Your task to perform on an android device: Find coffee shops on Maps Image 0: 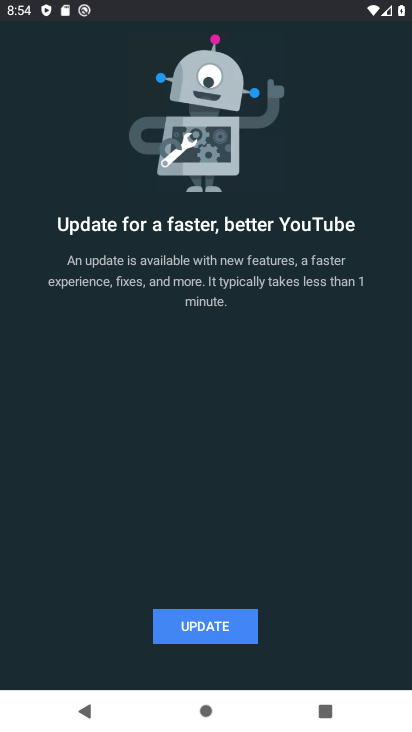
Step 0: press home button
Your task to perform on an android device: Find coffee shops on Maps Image 1: 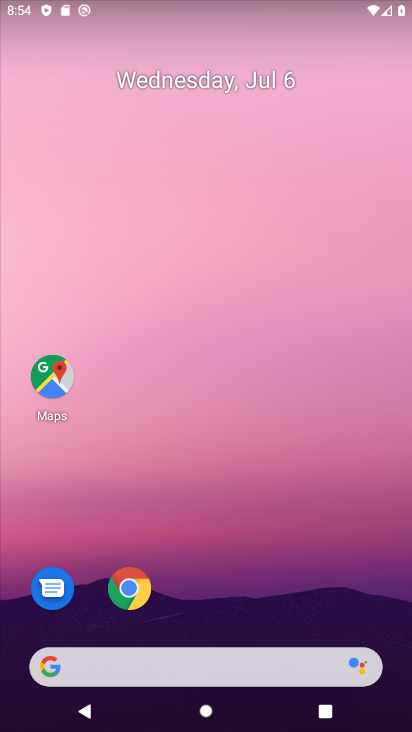
Step 1: click (62, 371)
Your task to perform on an android device: Find coffee shops on Maps Image 2: 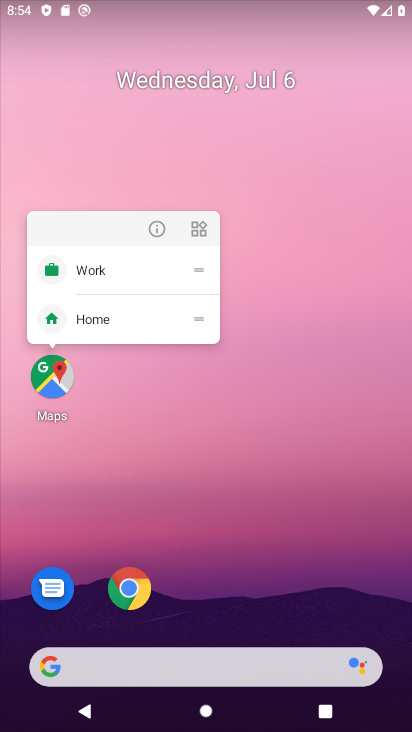
Step 2: click (54, 386)
Your task to perform on an android device: Find coffee shops on Maps Image 3: 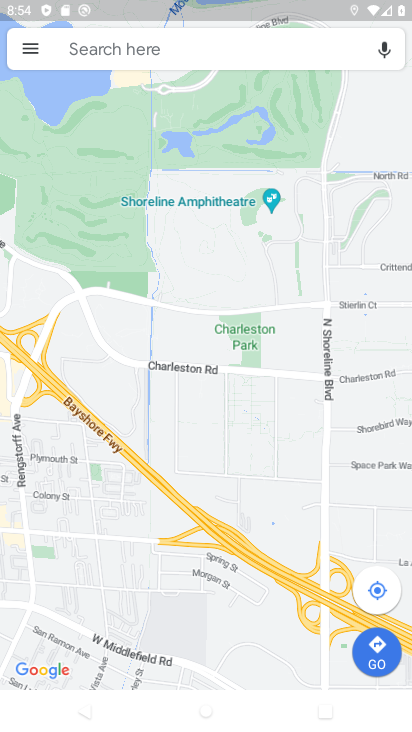
Step 3: click (201, 44)
Your task to perform on an android device: Find coffee shops on Maps Image 4: 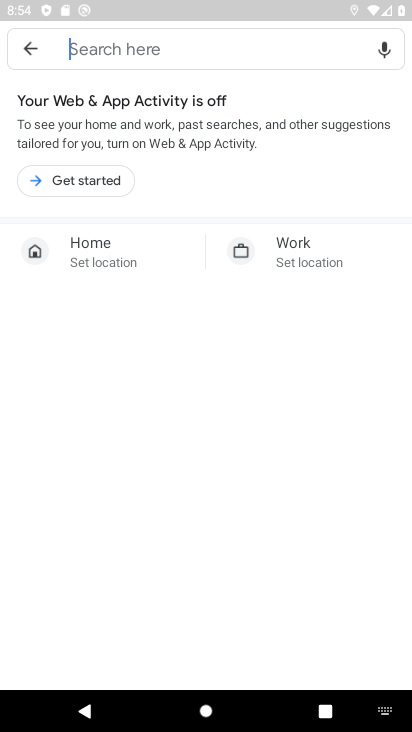
Step 4: type "coffee shops"
Your task to perform on an android device: Find coffee shops on Maps Image 5: 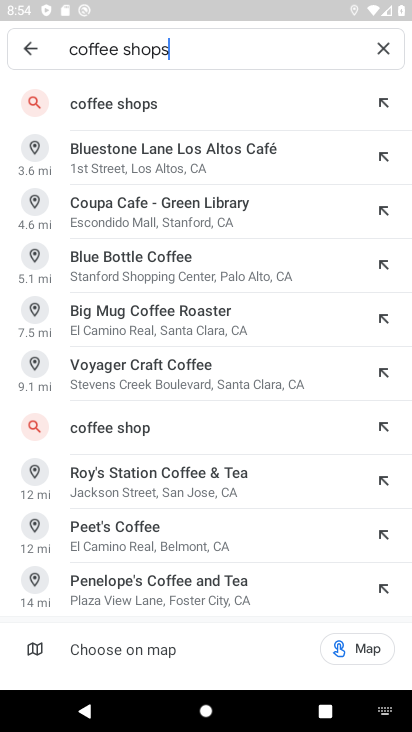
Step 5: click (157, 107)
Your task to perform on an android device: Find coffee shops on Maps Image 6: 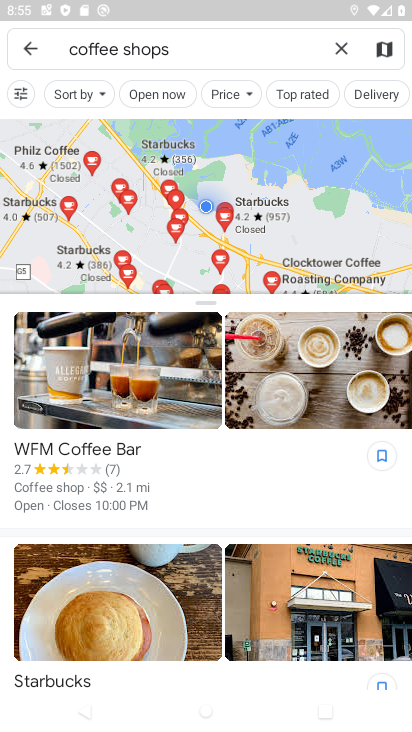
Step 6: task complete